Your task to perform on an android device: Add logitech g pro to the cart on bestbuy.com Image 0: 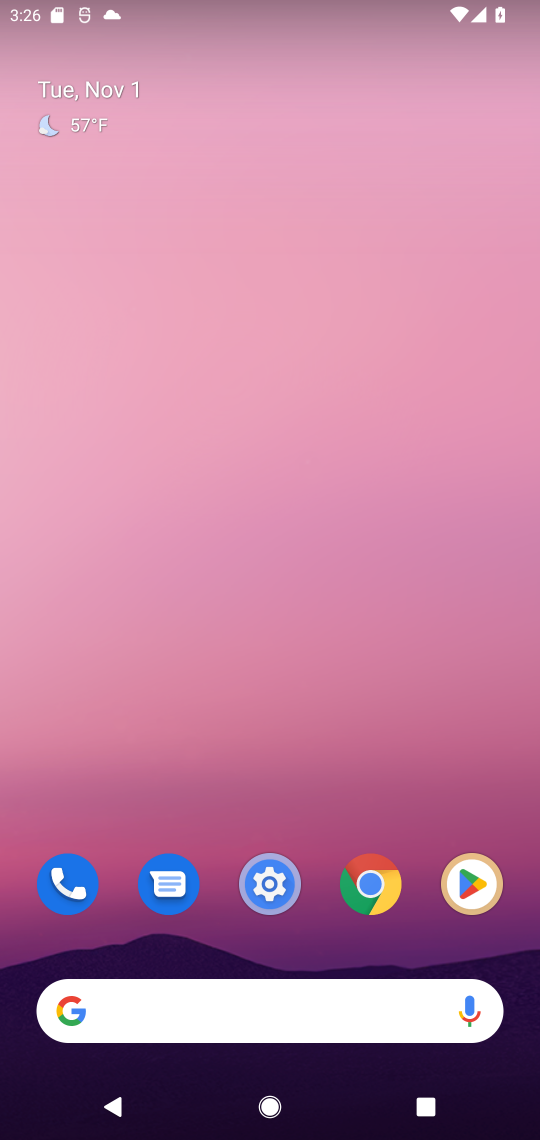
Step 0: press home button
Your task to perform on an android device: Add logitech g pro to the cart on bestbuy.com Image 1: 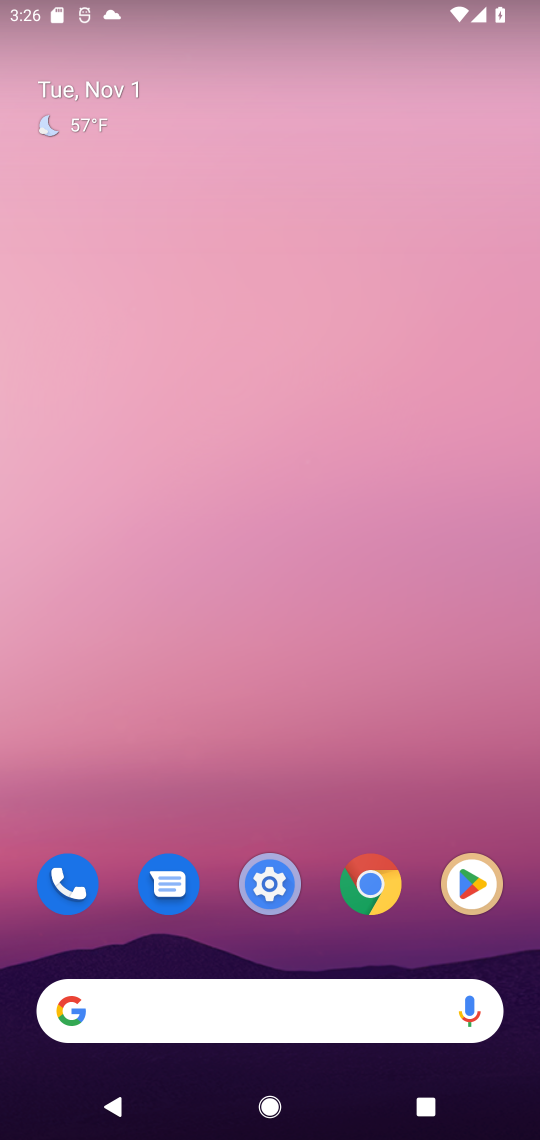
Step 1: click (133, 1020)
Your task to perform on an android device: Add logitech g pro to the cart on bestbuy.com Image 2: 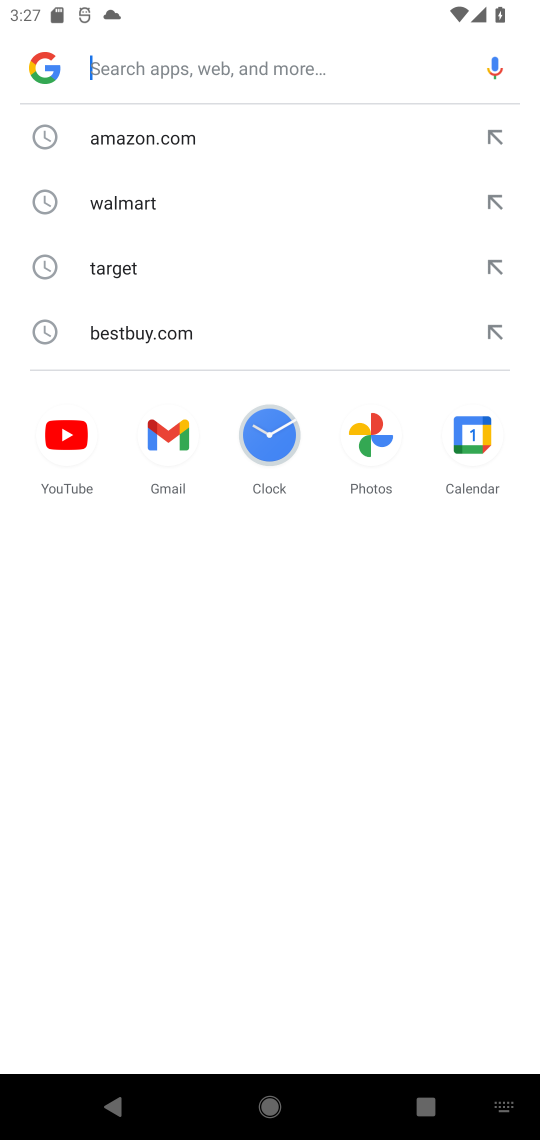
Step 2: press enter
Your task to perform on an android device: Add logitech g pro to the cart on bestbuy.com Image 3: 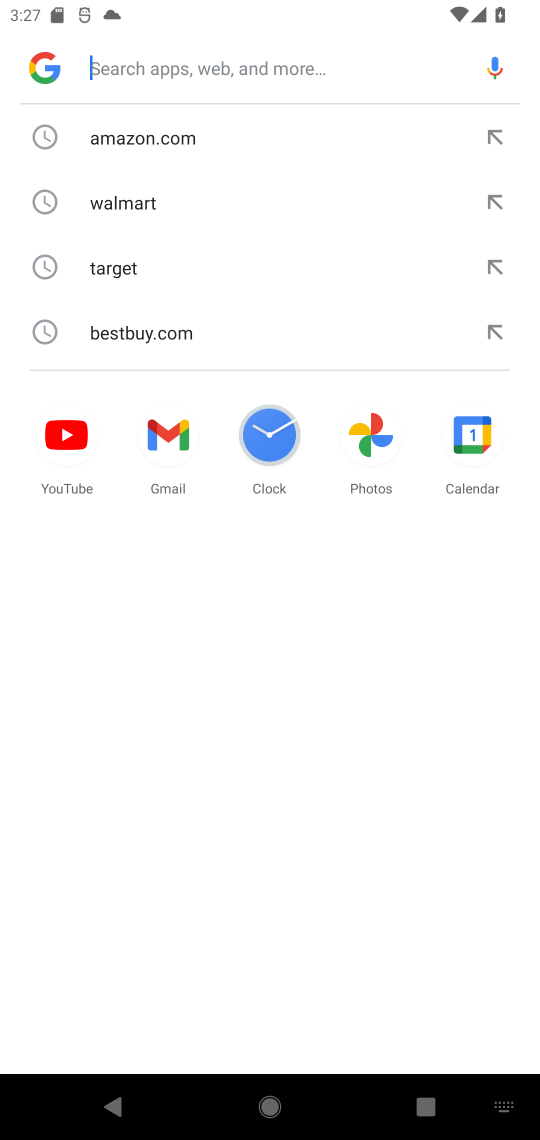
Step 3: type " bestbuy.com"
Your task to perform on an android device: Add logitech g pro to the cart on bestbuy.com Image 4: 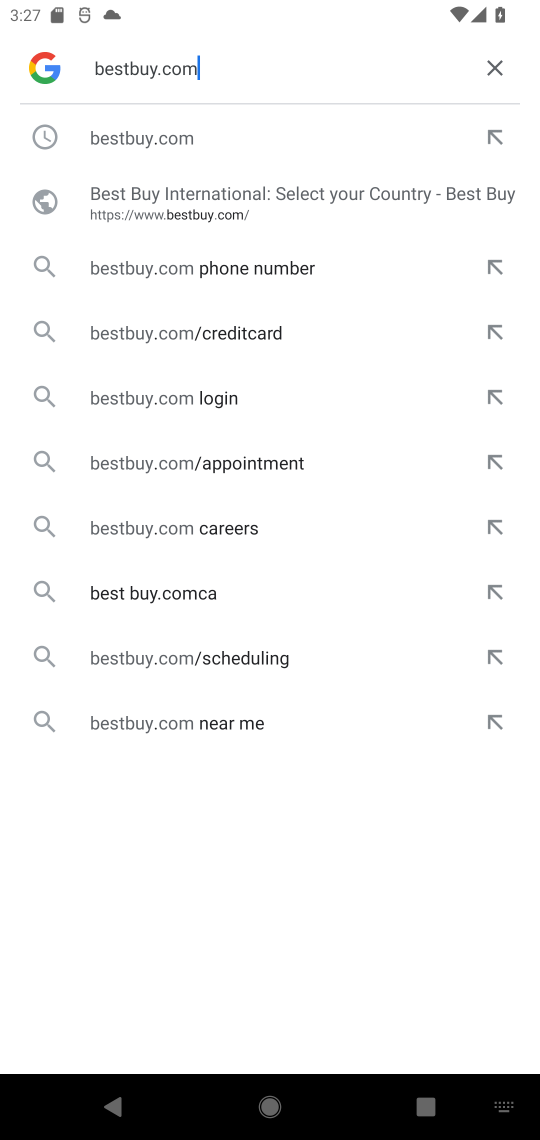
Step 4: press enter
Your task to perform on an android device: Add logitech g pro to the cart on bestbuy.com Image 5: 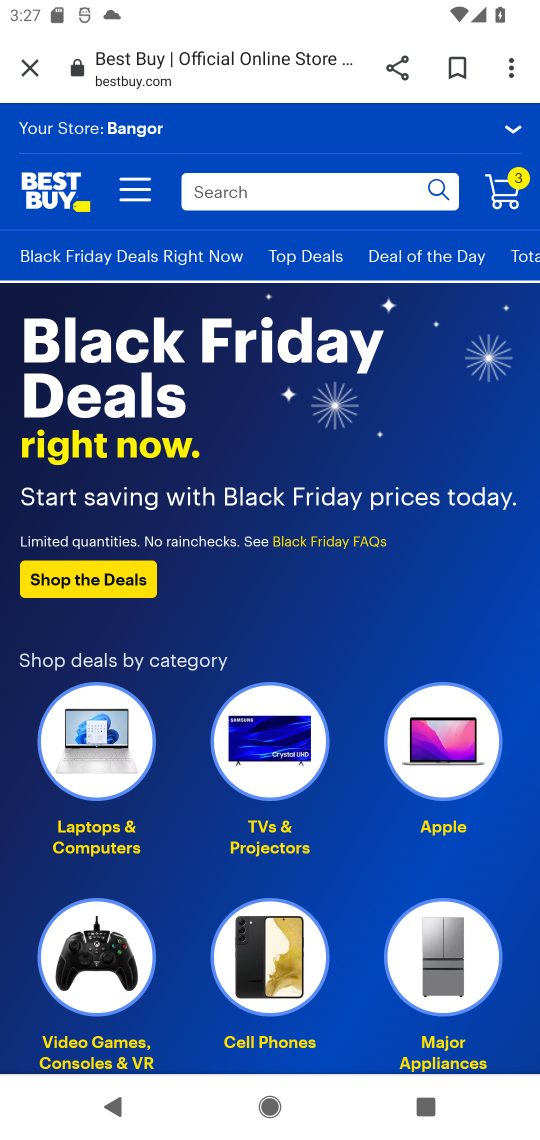
Step 5: click (221, 189)
Your task to perform on an android device: Add logitech g pro to the cart on bestbuy.com Image 6: 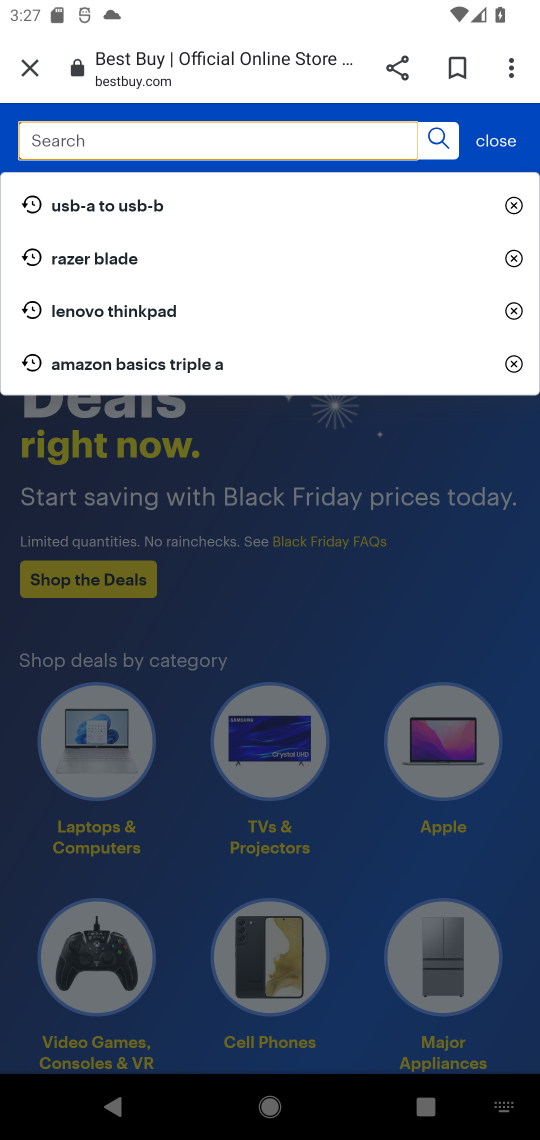
Step 6: press enter
Your task to perform on an android device: Add logitech g pro to the cart on bestbuy.com Image 7: 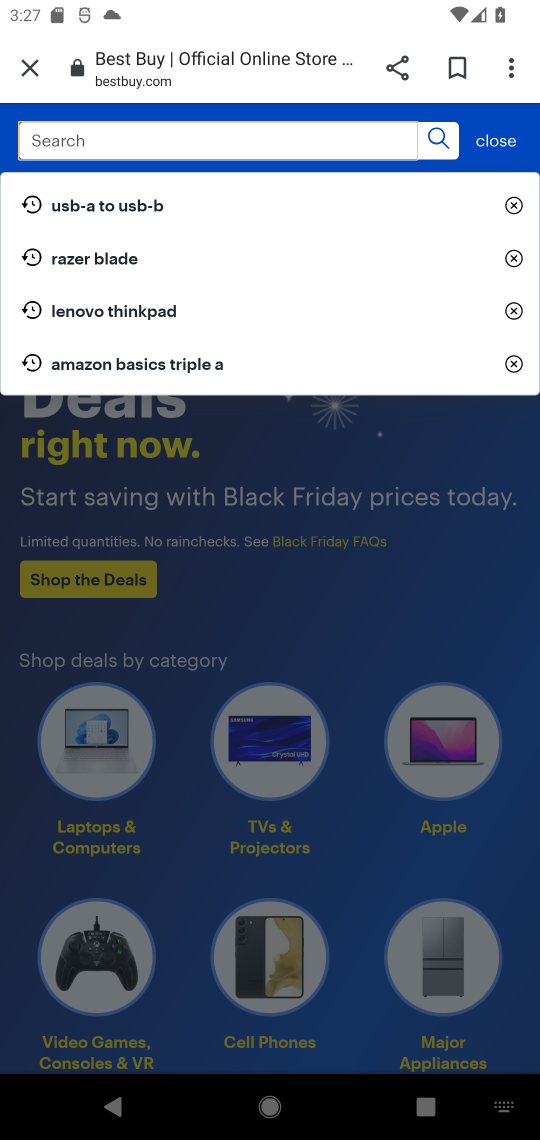
Step 7: type "logitech g pro"
Your task to perform on an android device: Add logitech g pro to the cart on bestbuy.com Image 8: 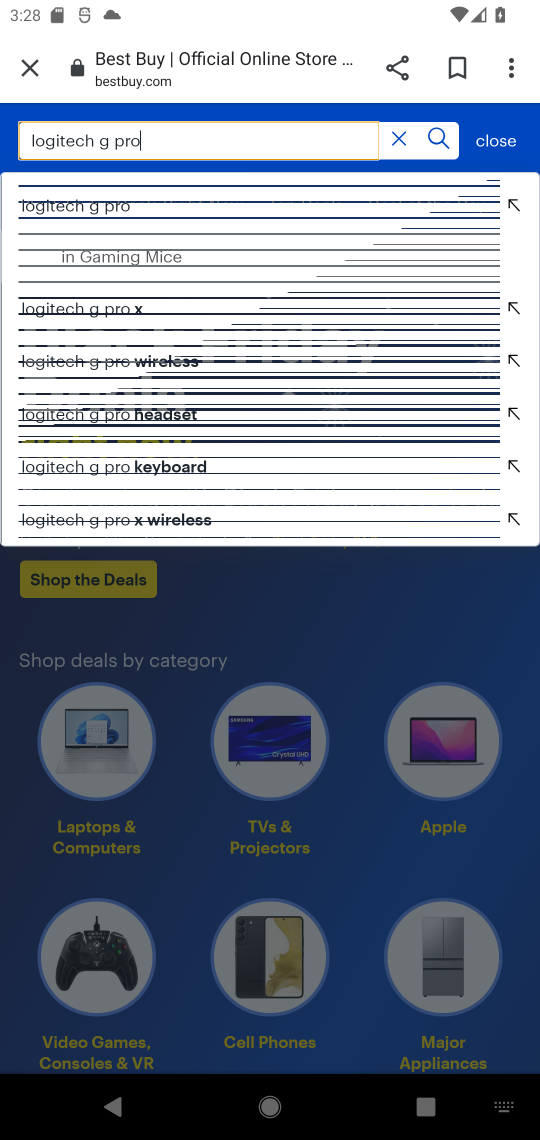
Step 8: click (440, 142)
Your task to perform on an android device: Add logitech g pro to the cart on bestbuy.com Image 9: 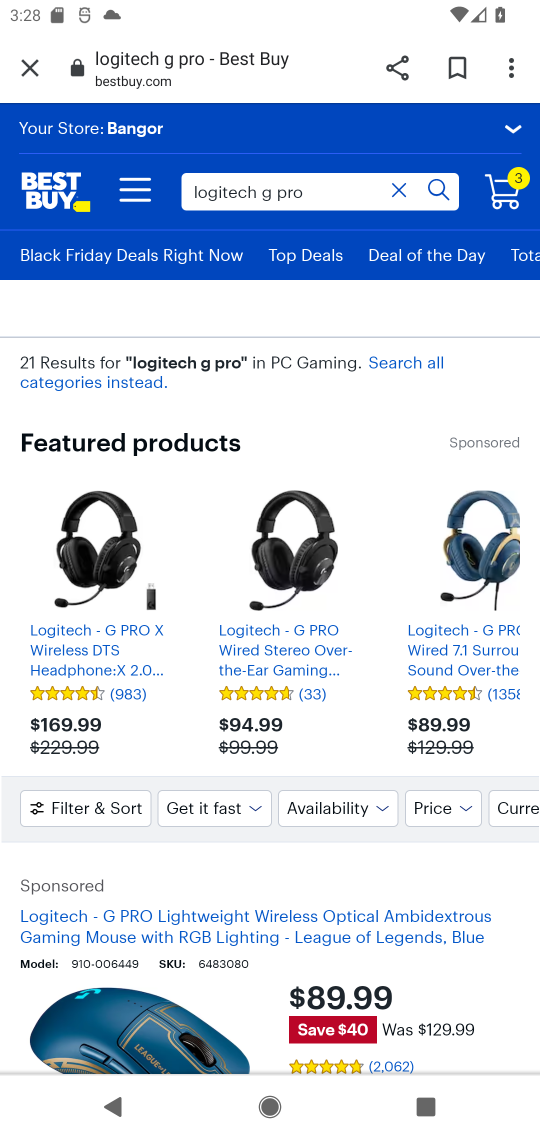
Step 9: drag from (275, 886) to (329, 535)
Your task to perform on an android device: Add logitech g pro to the cart on bestbuy.com Image 10: 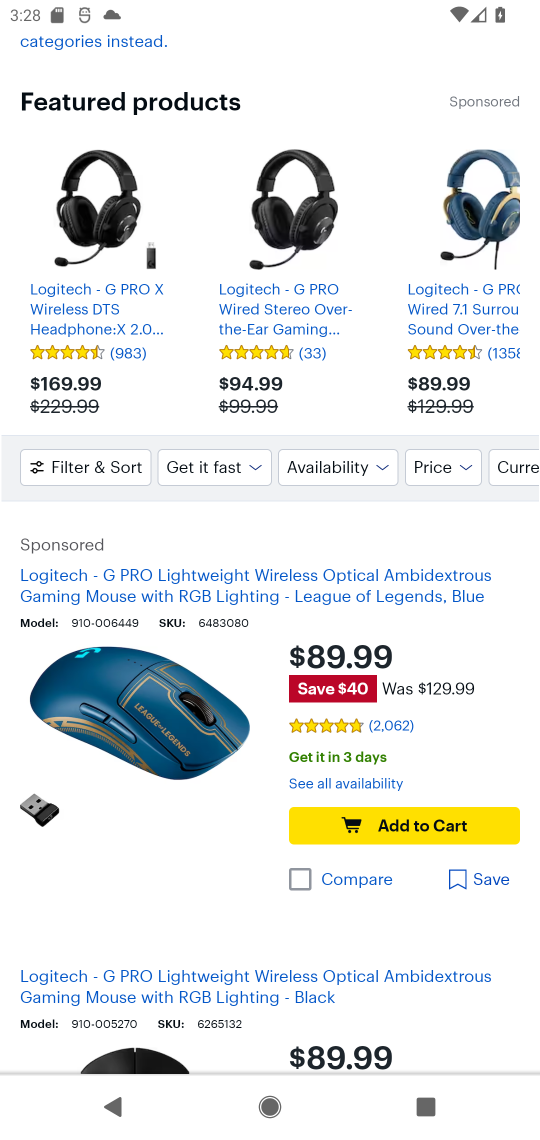
Step 10: drag from (218, 849) to (235, 567)
Your task to perform on an android device: Add logitech g pro to the cart on bestbuy.com Image 11: 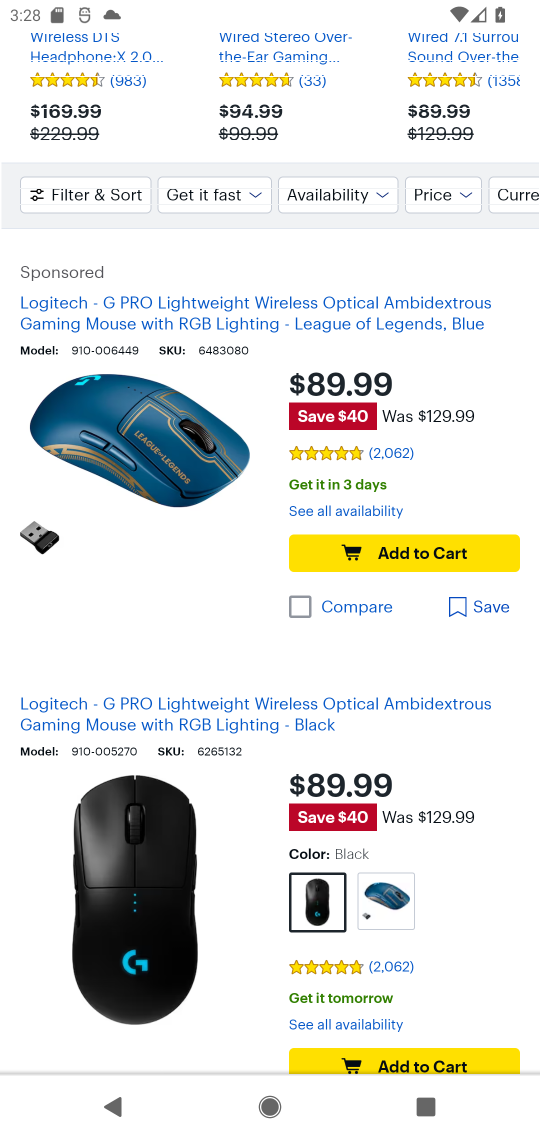
Step 11: click (404, 546)
Your task to perform on an android device: Add logitech g pro to the cart on bestbuy.com Image 12: 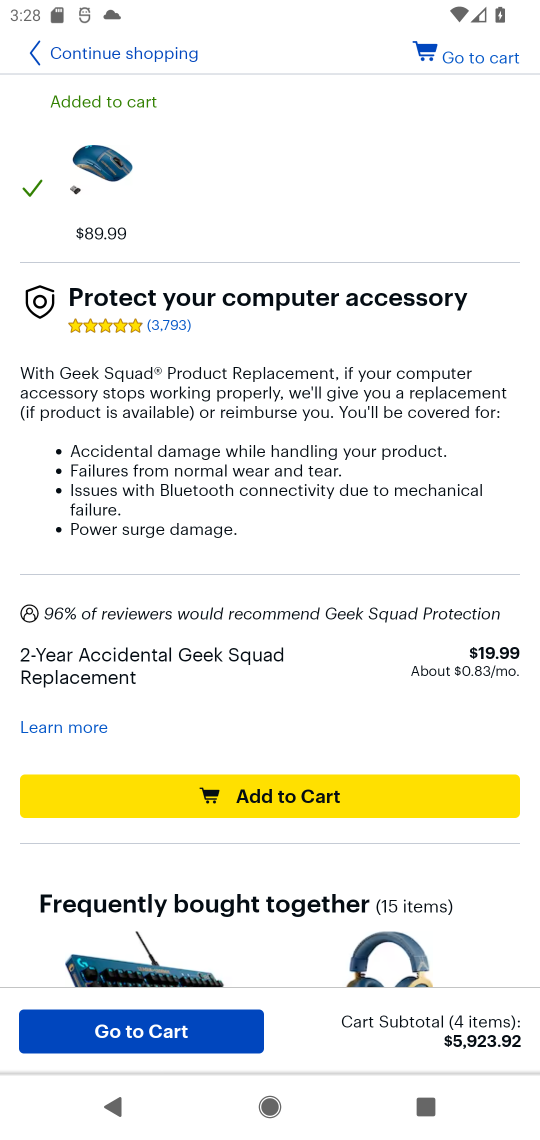
Step 12: task complete